Your task to perform on an android device: turn on showing notifications on the lock screen Image 0: 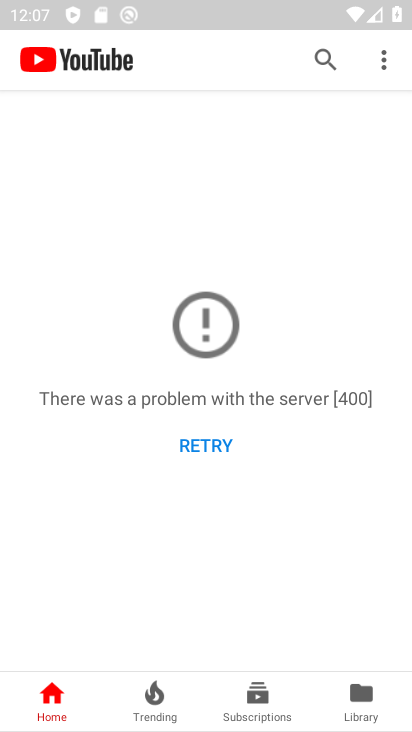
Step 0: press home button
Your task to perform on an android device: turn on showing notifications on the lock screen Image 1: 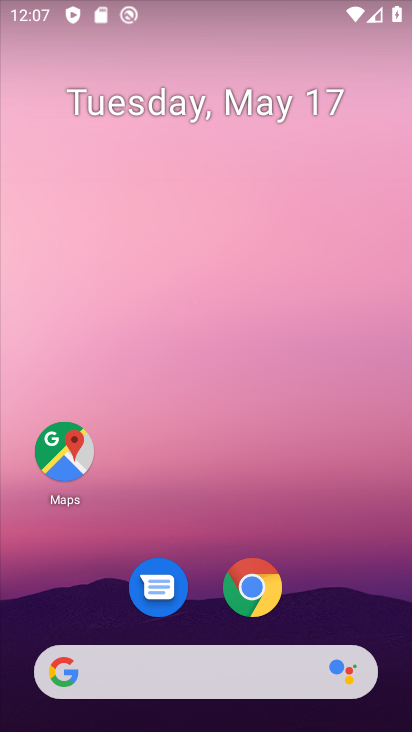
Step 1: drag from (201, 622) to (289, 55)
Your task to perform on an android device: turn on showing notifications on the lock screen Image 2: 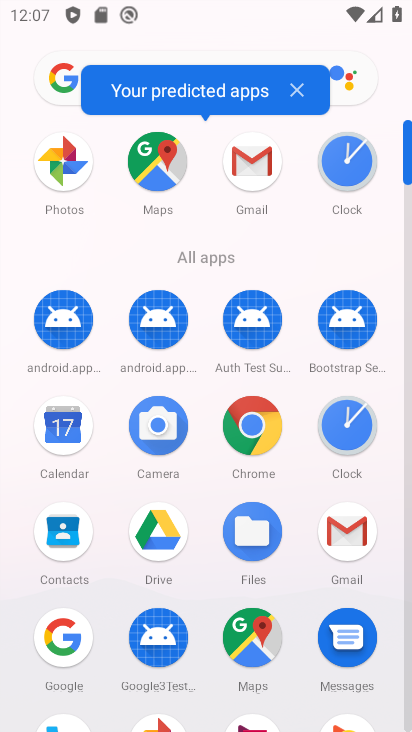
Step 2: drag from (188, 569) to (247, 221)
Your task to perform on an android device: turn on showing notifications on the lock screen Image 3: 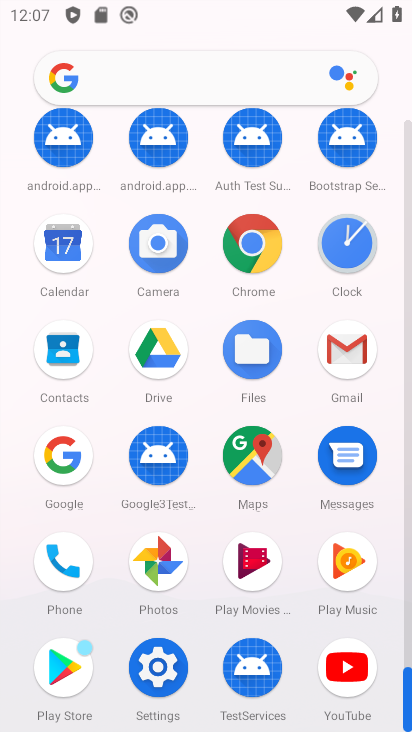
Step 3: click (165, 671)
Your task to perform on an android device: turn on showing notifications on the lock screen Image 4: 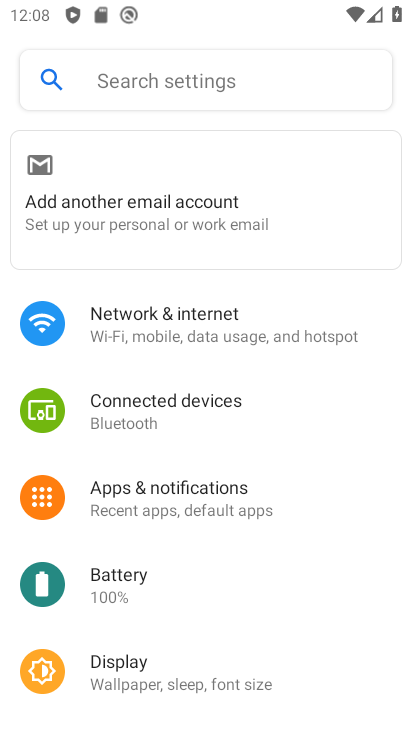
Step 4: click (186, 496)
Your task to perform on an android device: turn on showing notifications on the lock screen Image 5: 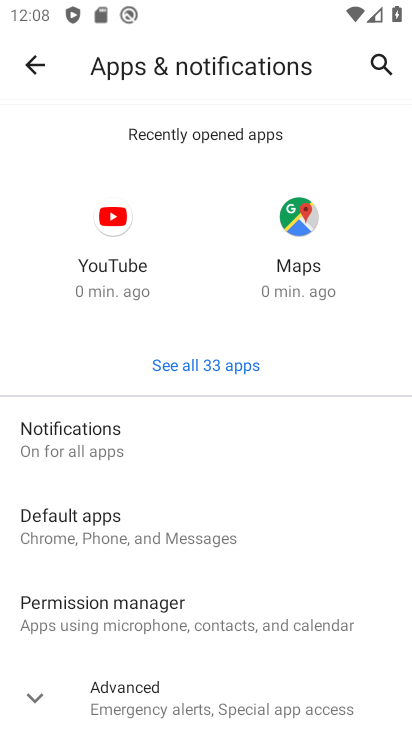
Step 5: click (117, 450)
Your task to perform on an android device: turn on showing notifications on the lock screen Image 6: 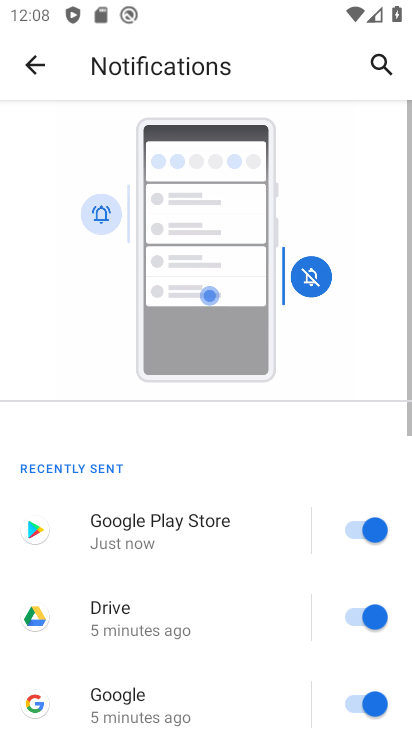
Step 6: drag from (177, 624) to (236, 443)
Your task to perform on an android device: turn on showing notifications on the lock screen Image 7: 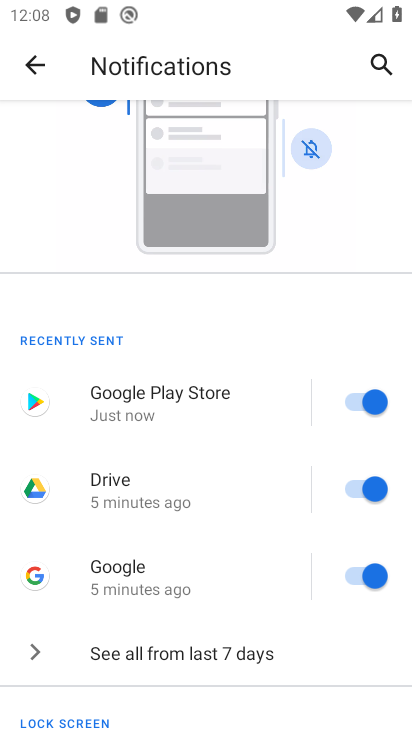
Step 7: drag from (194, 635) to (239, 360)
Your task to perform on an android device: turn on showing notifications on the lock screen Image 8: 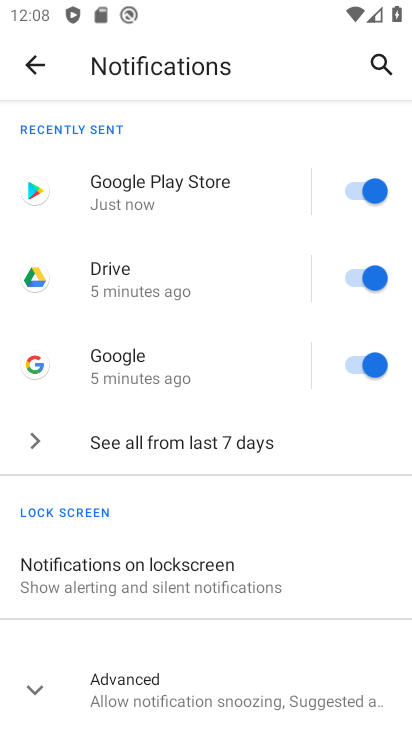
Step 8: click (156, 583)
Your task to perform on an android device: turn on showing notifications on the lock screen Image 9: 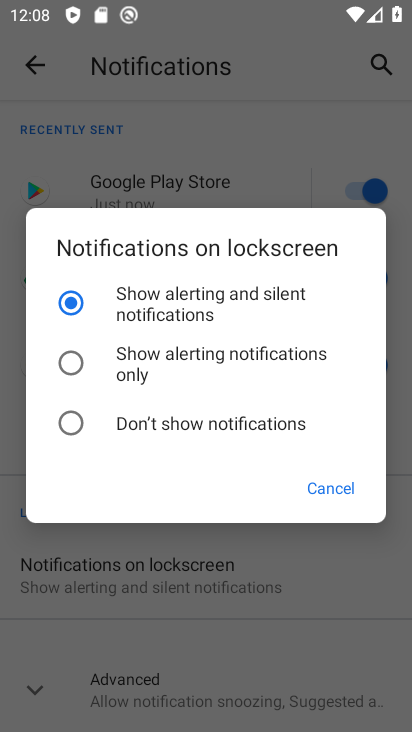
Step 9: task complete